Your task to perform on an android device: open app "HBO Max: Stream TV & Movies" (install if not already installed) Image 0: 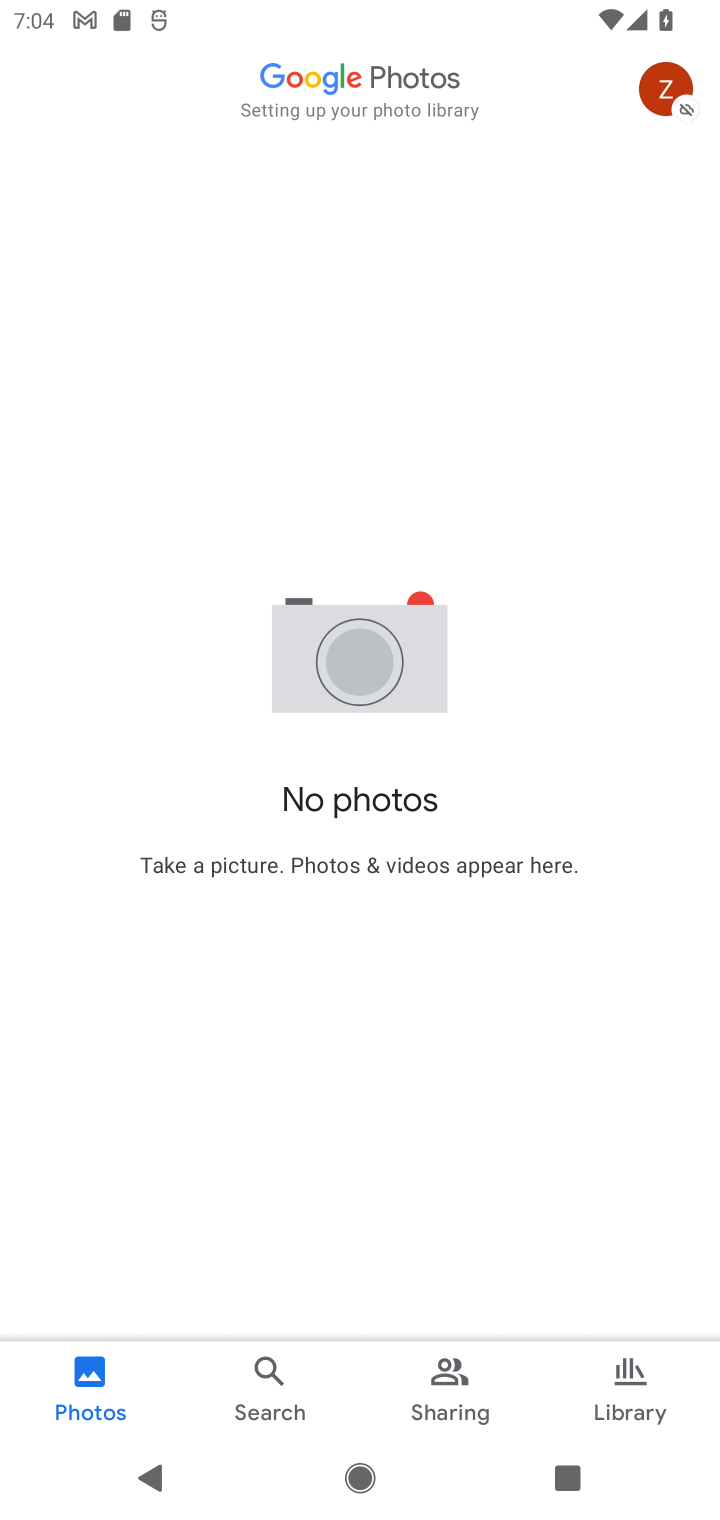
Step 0: press home button
Your task to perform on an android device: open app "HBO Max: Stream TV & Movies" (install if not already installed) Image 1: 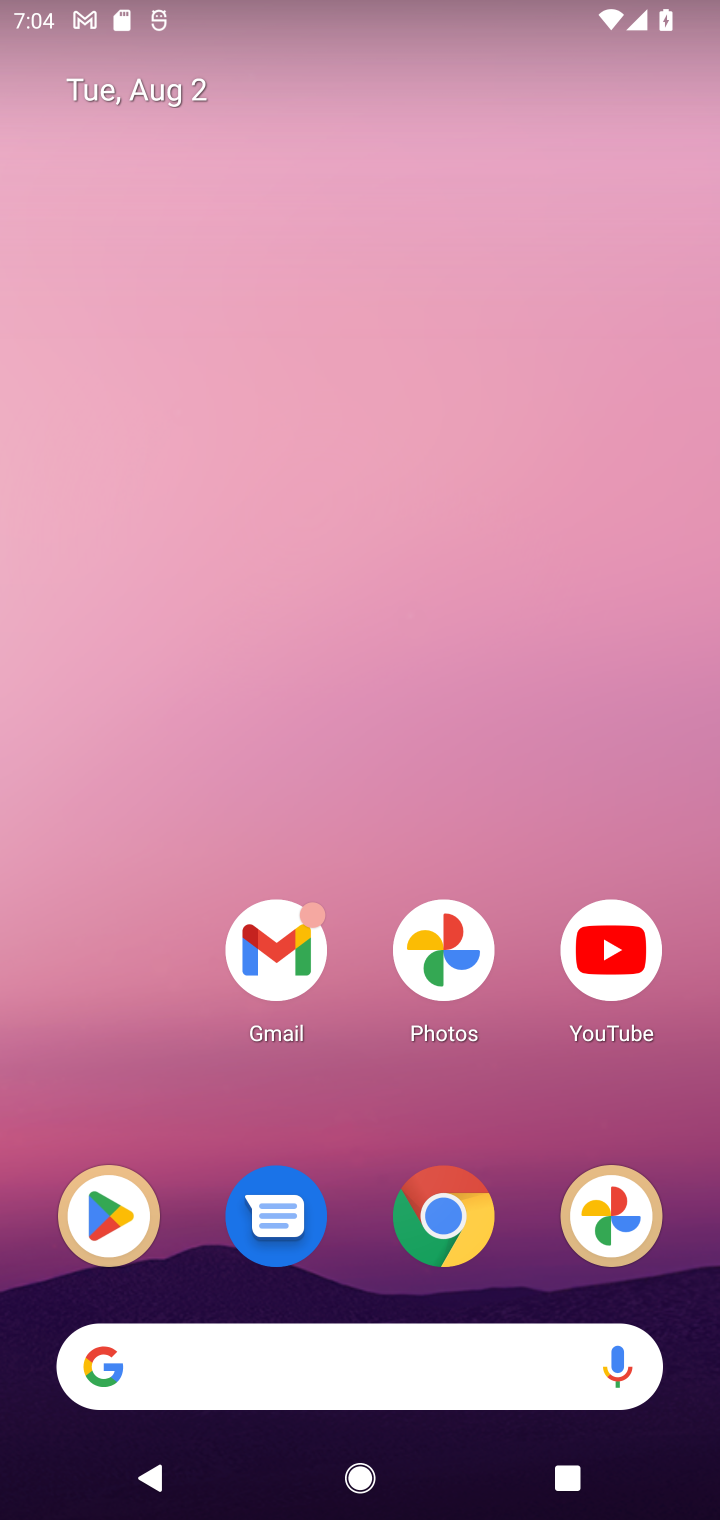
Step 1: click (123, 1199)
Your task to perform on an android device: open app "HBO Max: Stream TV & Movies" (install if not already installed) Image 2: 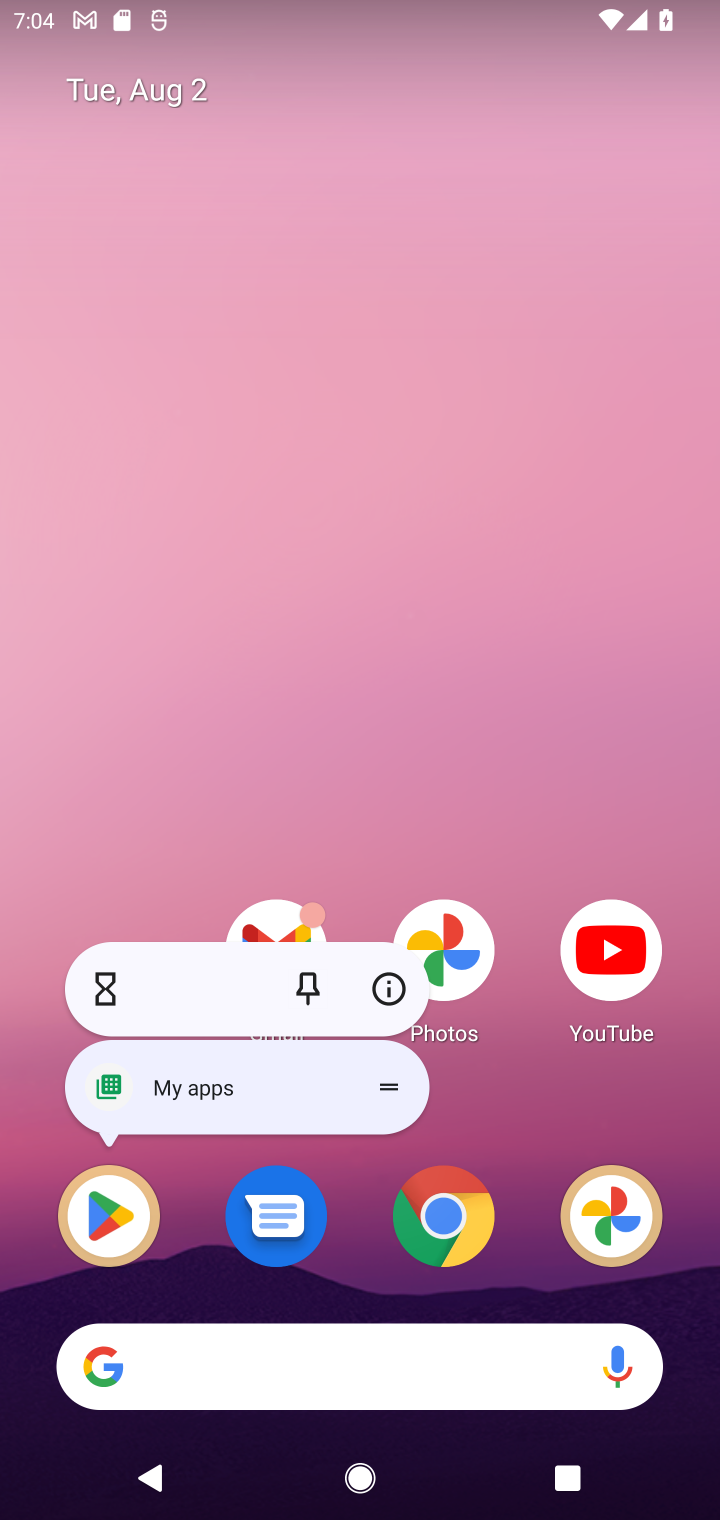
Step 2: click (123, 1199)
Your task to perform on an android device: open app "HBO Max: Stream TV & Movies" (install if not already installed) Image 3: 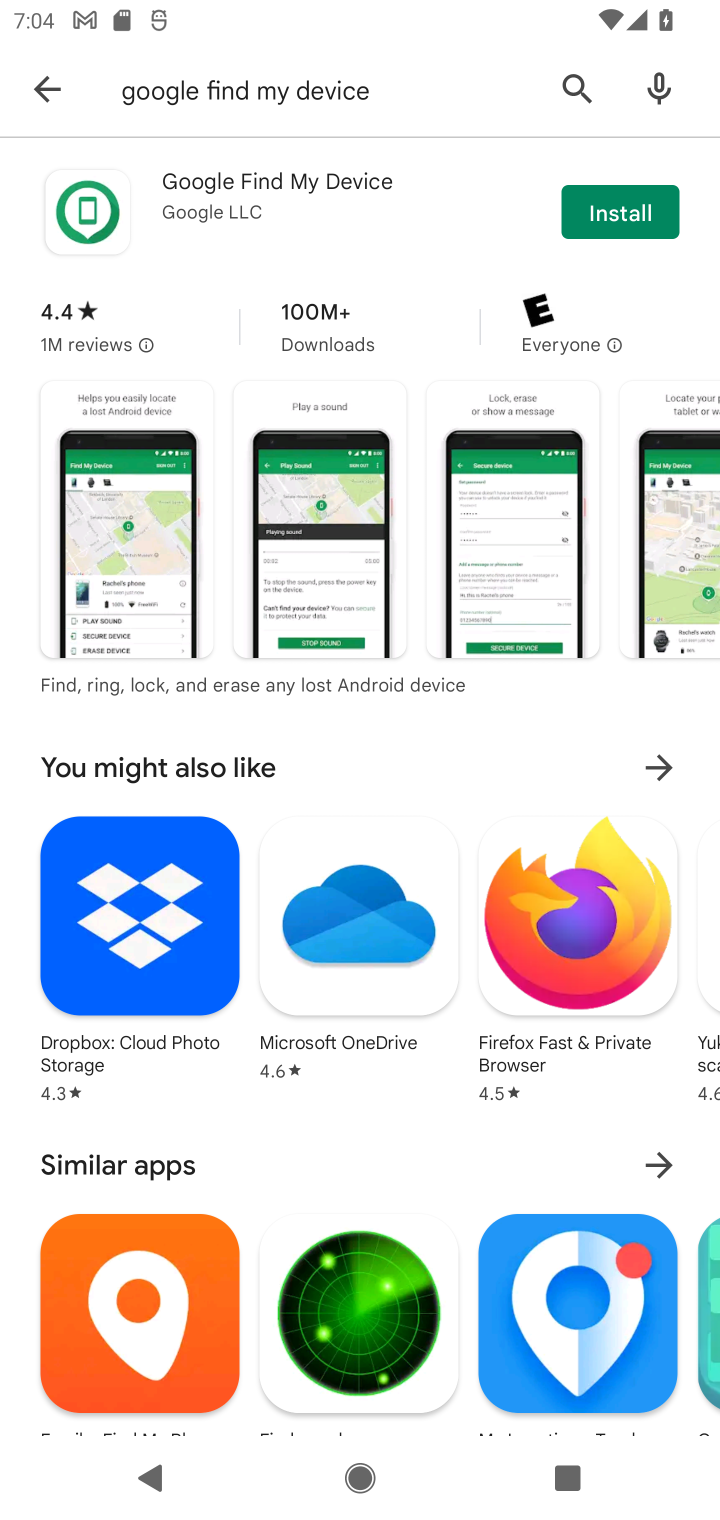
Step 3: click (576, 93)
Your task to perform on an android device: open app "HBO Max: Stream TV & Movies" (install if not already installed) Image 4: 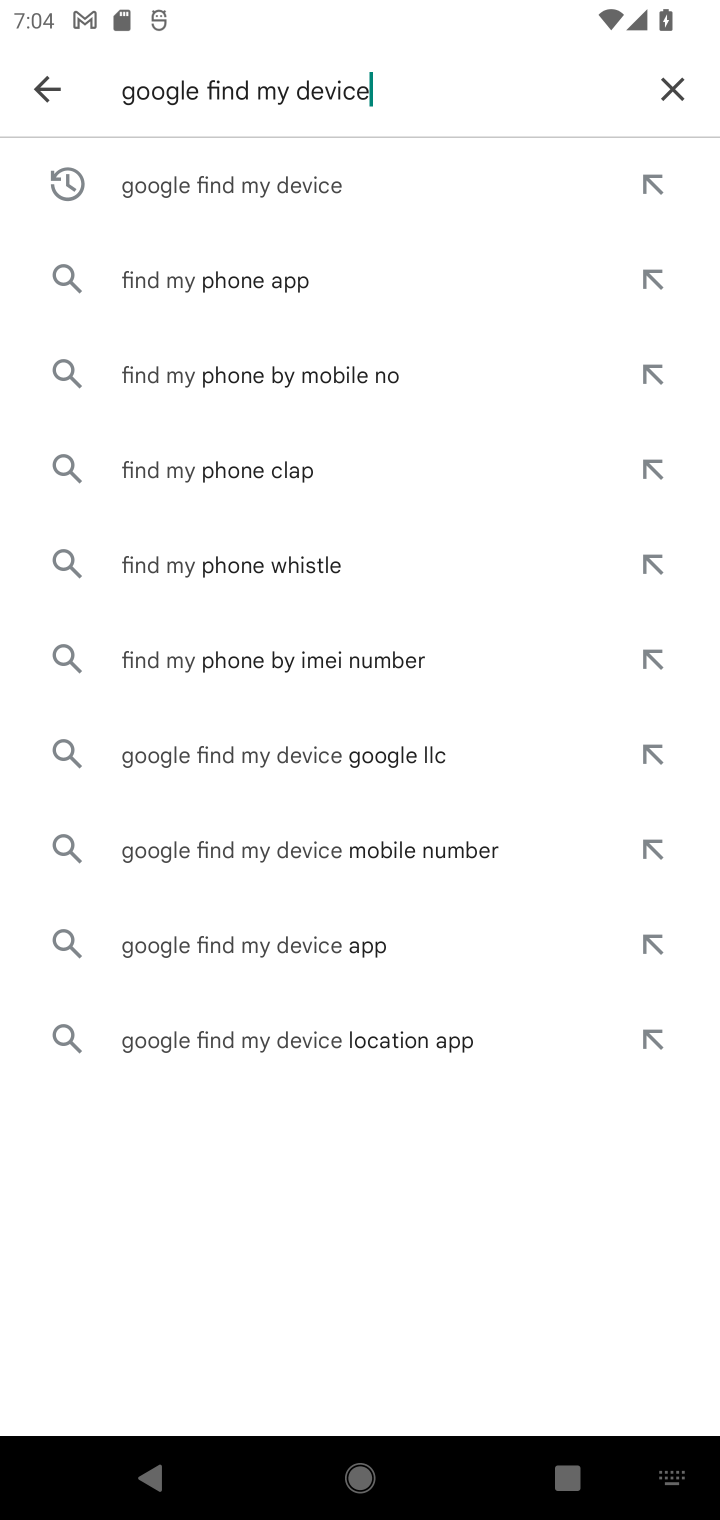
Step 4: click (651, 70)
Your task to perform on an android device: open app "HBO Max: Stream TV & Movies" (install if not already installed) Image 5: 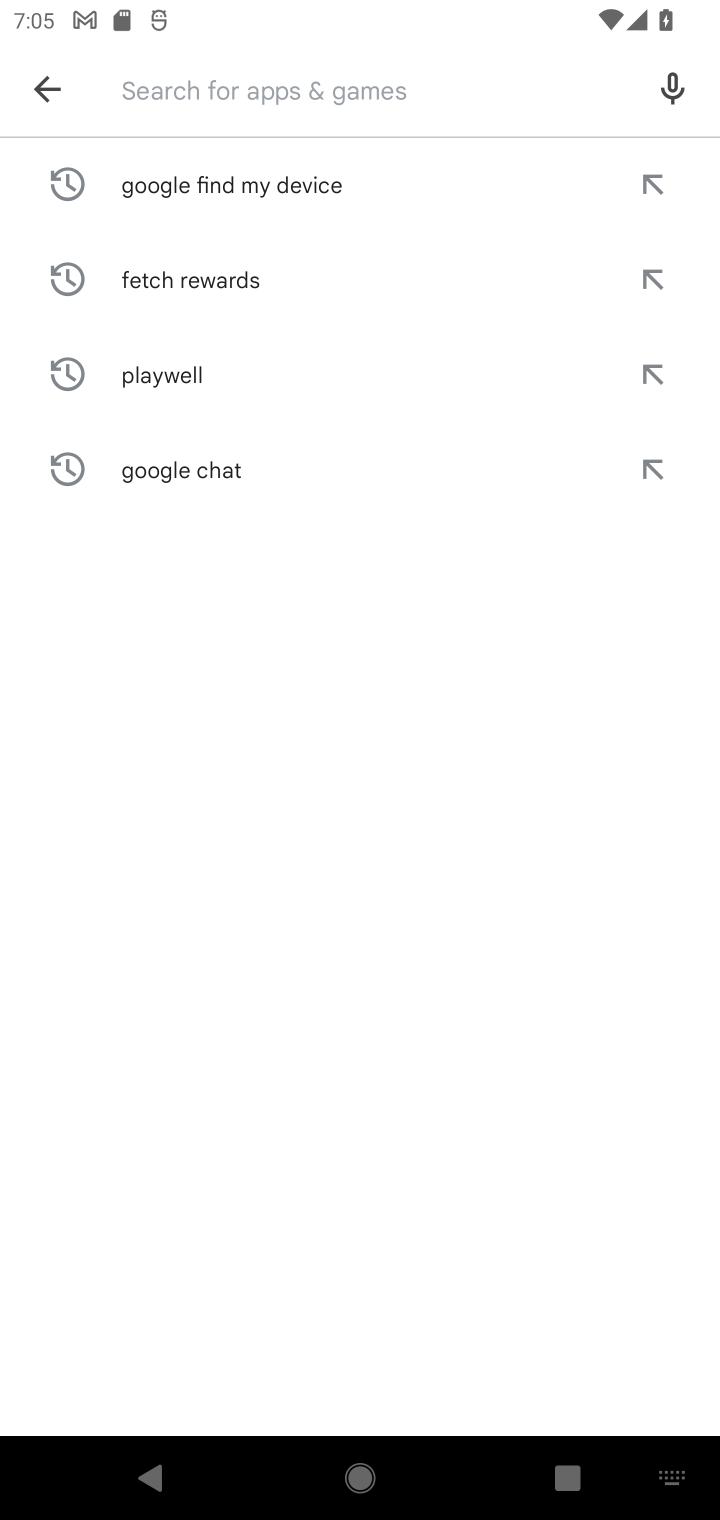
Step 5: type "HBO Max: Stream TV & Movies"
Your task to perform on an android device: open app "HBO Max: Stream TV & Movies" (install if not already installed) Image 6: 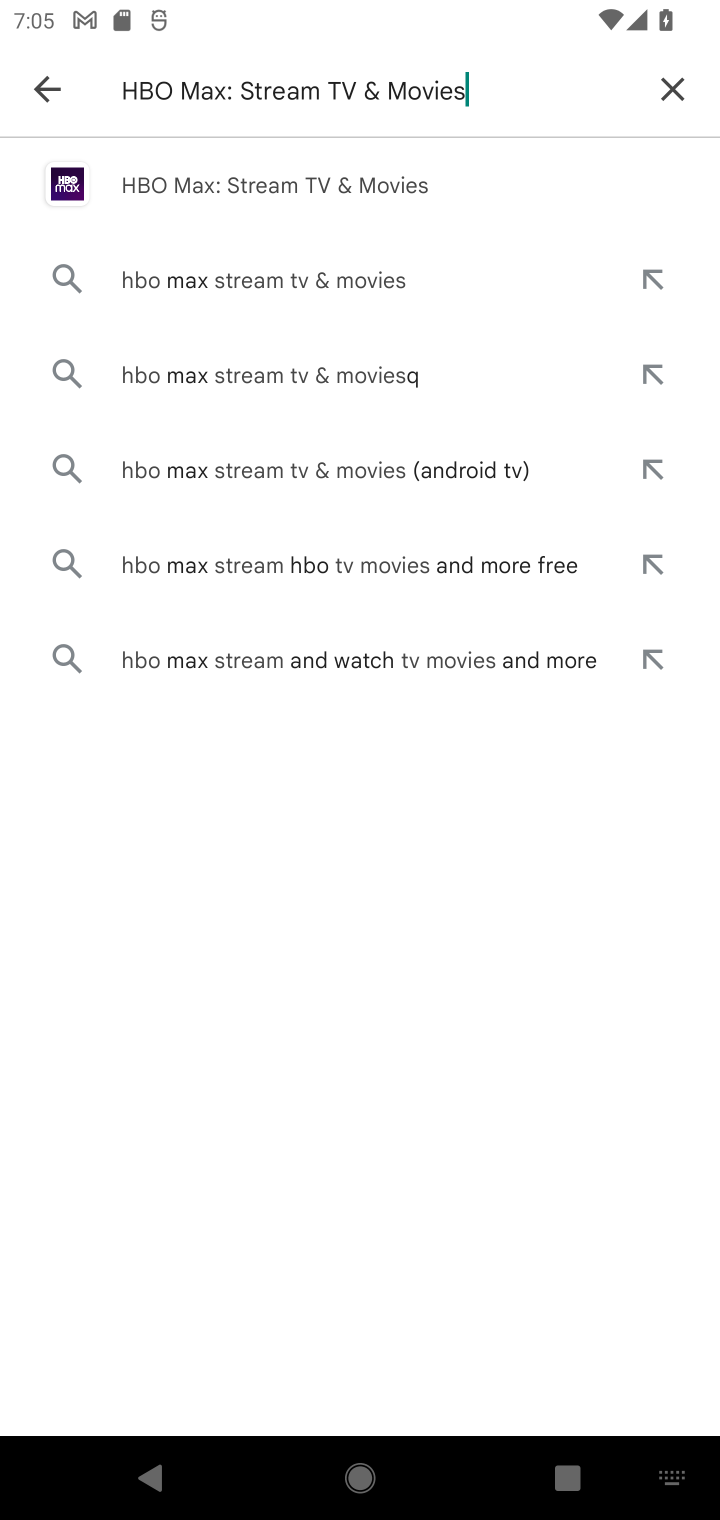
Step 6: click (324, 181)
Your task to perform on an android device: open app "HBO Max: Stream TV & Movies" (install if not already installed) Image 7: 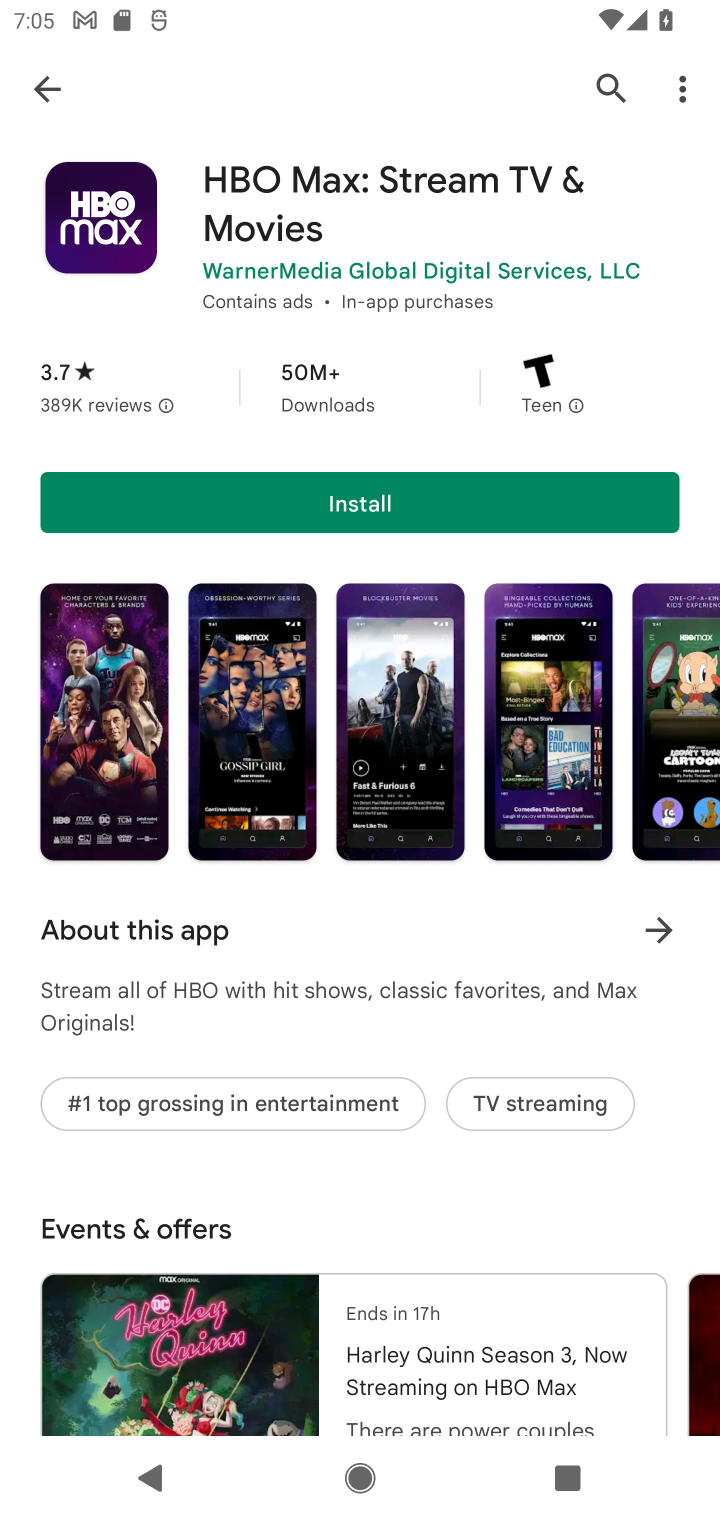
Step 7: click (410, 499)
Your task to perform on an android device: open app "HBO Max: Stream TV & Movies" (install if not already installed) Image 8: 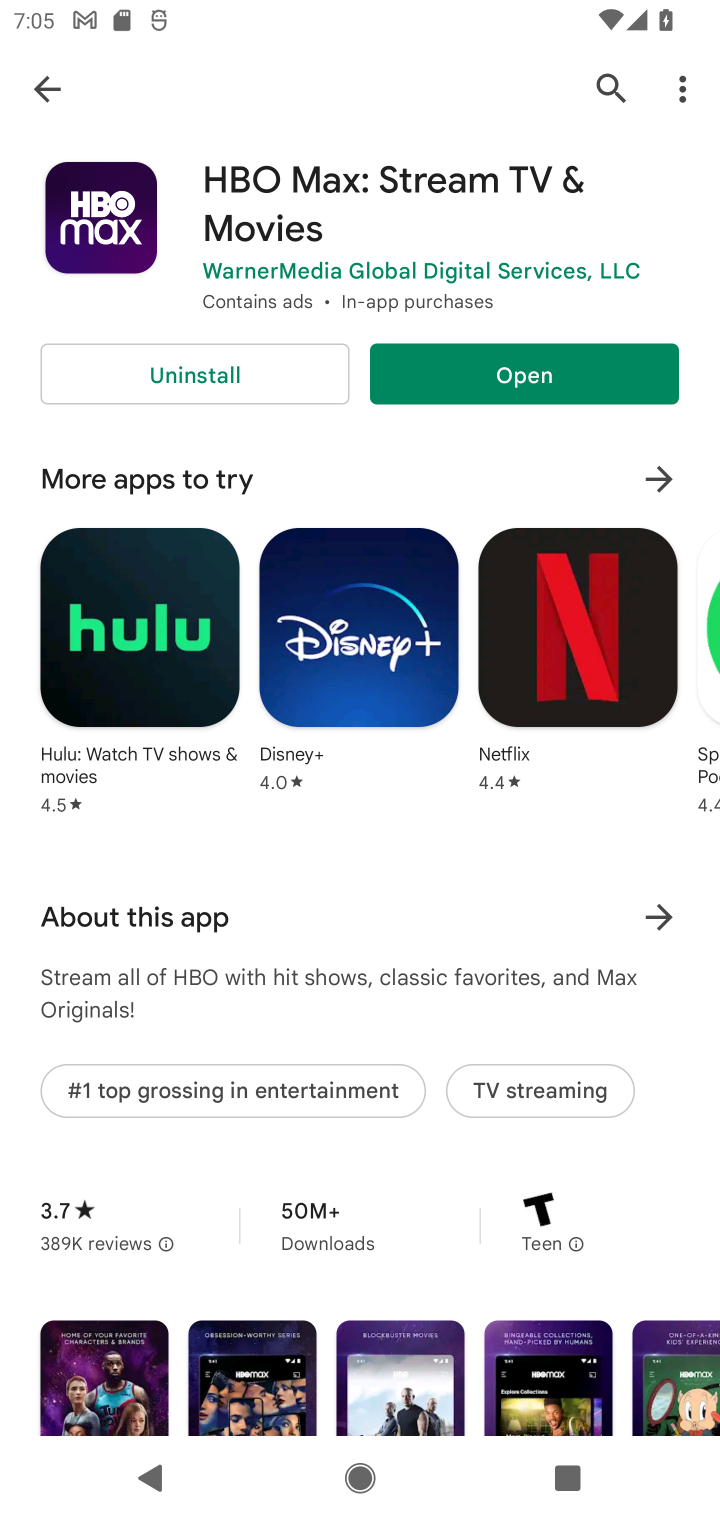
Step 8: click (581, 374)
Your task to perform on an android device: open app "HBO Max: Stream TV & Movies" (install if not already installed) Image 9: 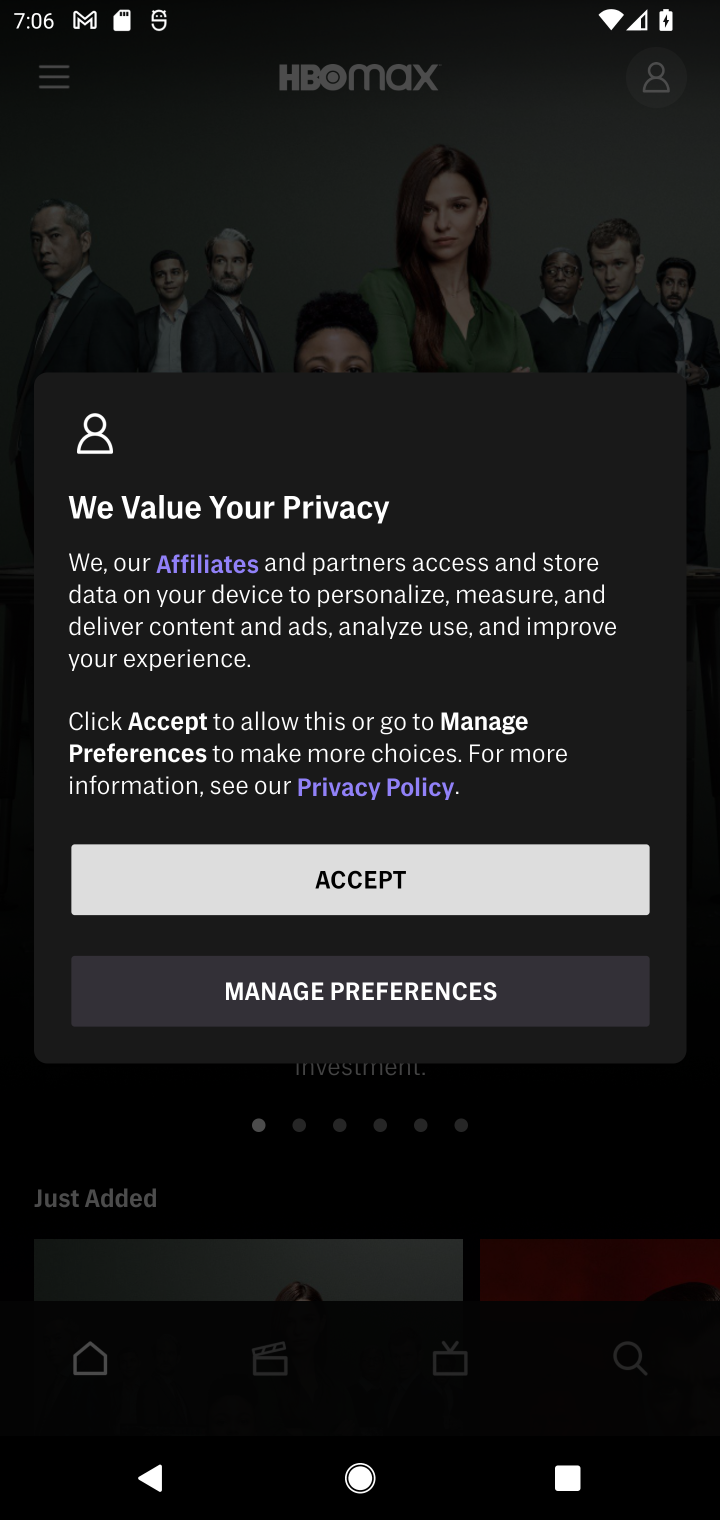
Step 9: task complete